Your task to perform on an android device: Open accessibility settings Image 0: 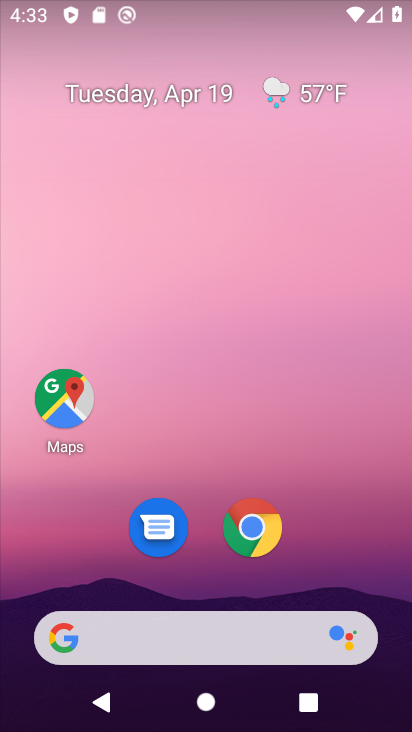
Step 0: drag from (365, 579) to (311, 195)
Your task to perform on an android device: Open accessibility settings Image 1: 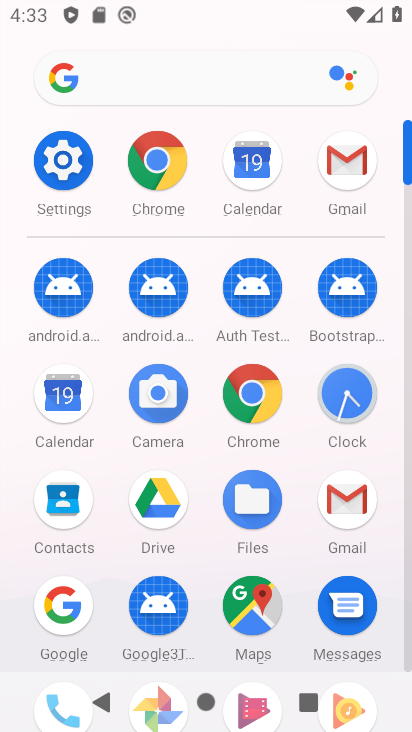
Step 1: click (407, 658)
Your task to perform on an android device: Open accessibility settings Image 2: 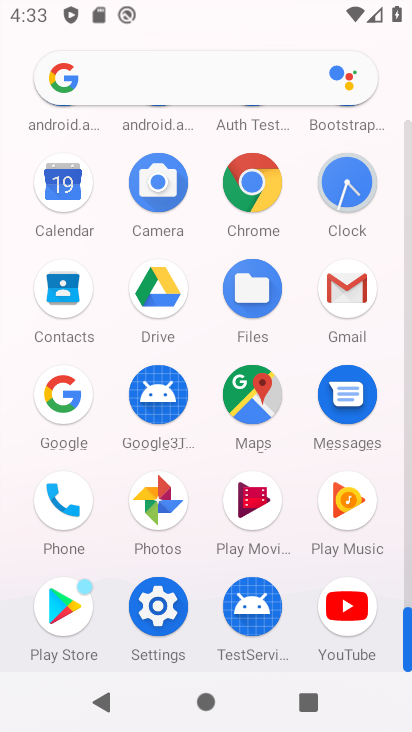
Step 2: click (160, 607)
Your task to perform on an android device: Open accessibility settings Image 3: 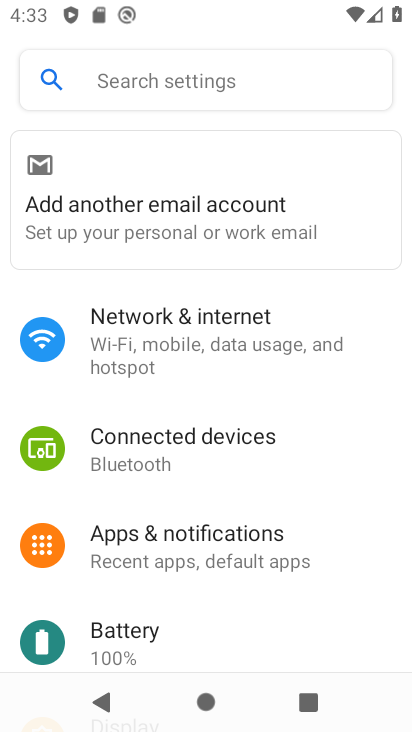
Step 3: drag from (313, 577) to (310, 243)
Your task to perform on an android device: Open accessibility settings Image 4: 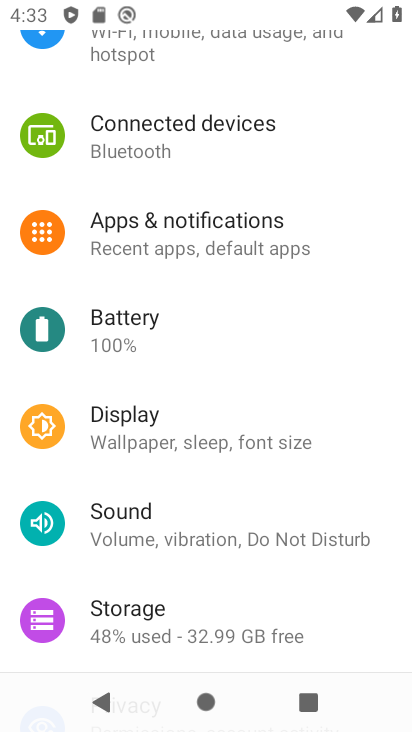
Step 4: drag from (293, 522) to (319, 205)
Your task to perform on an android device: Open accessibility settings Image 5: 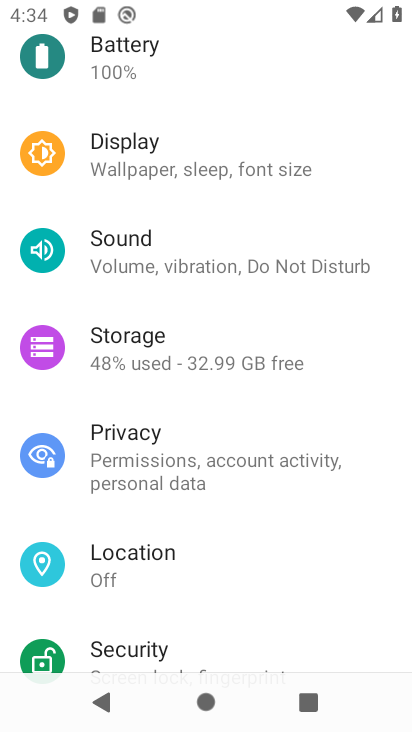
Step 5: drag from (303, 562) to (342, 271)
Your task to perform on an android device: Open accessibility settings Image 6: 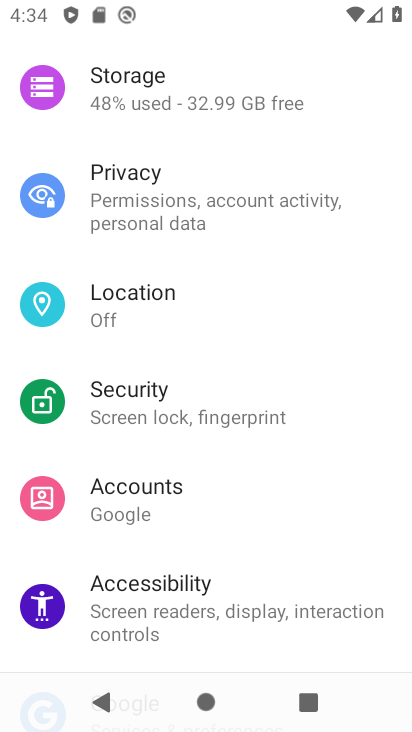
Step 6: click (173, 593)
Your task to perform on an android device: Open accessibility settings Image 7: 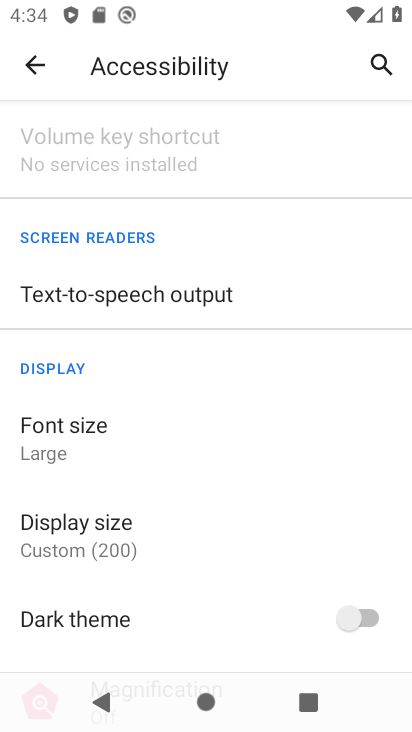
Step 7: task complete